Your task to perform on an android device: Add "logitech g pro" to the cart on bestbuy, then select checkout. Image 0: 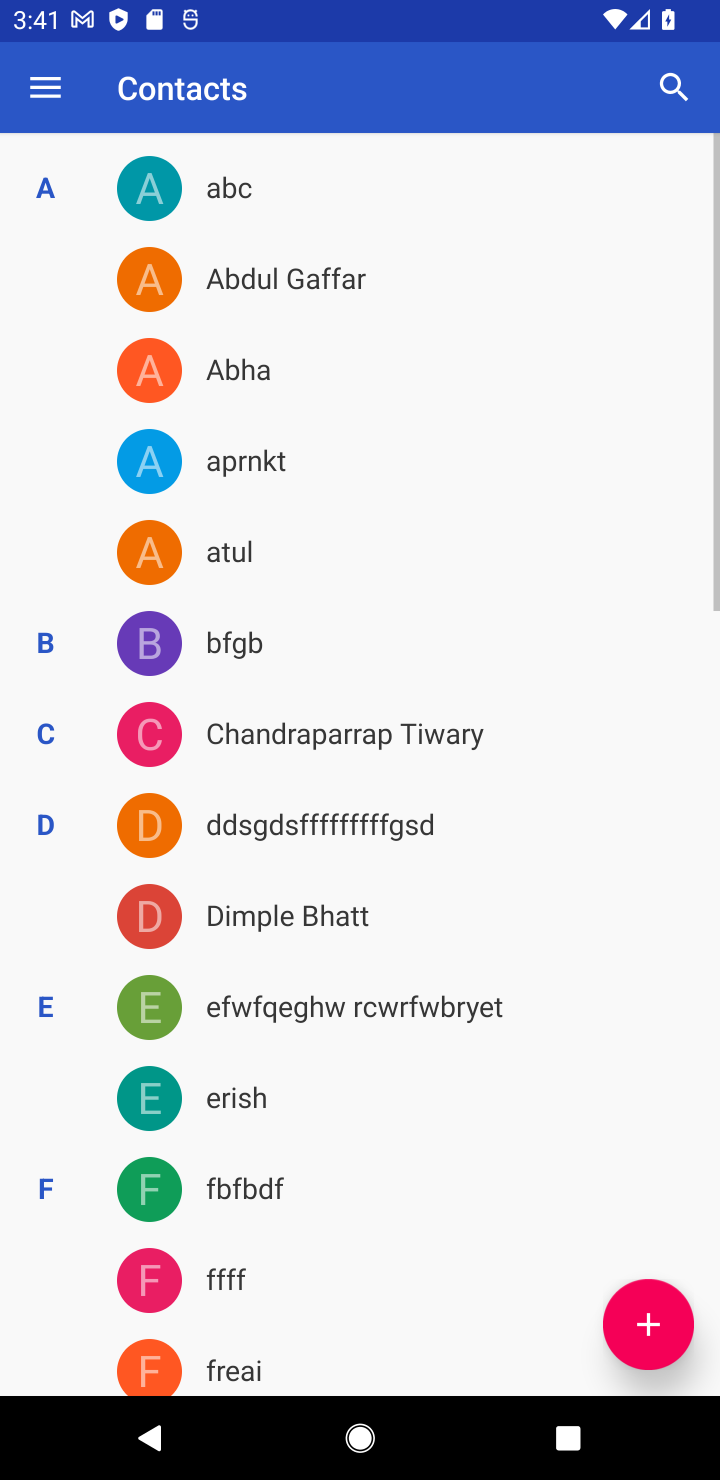
Step 0: press home button
Your task to perform on an android device: Add "logitech g pro" to the cart on bestbuy, then select checkout. Image 1: 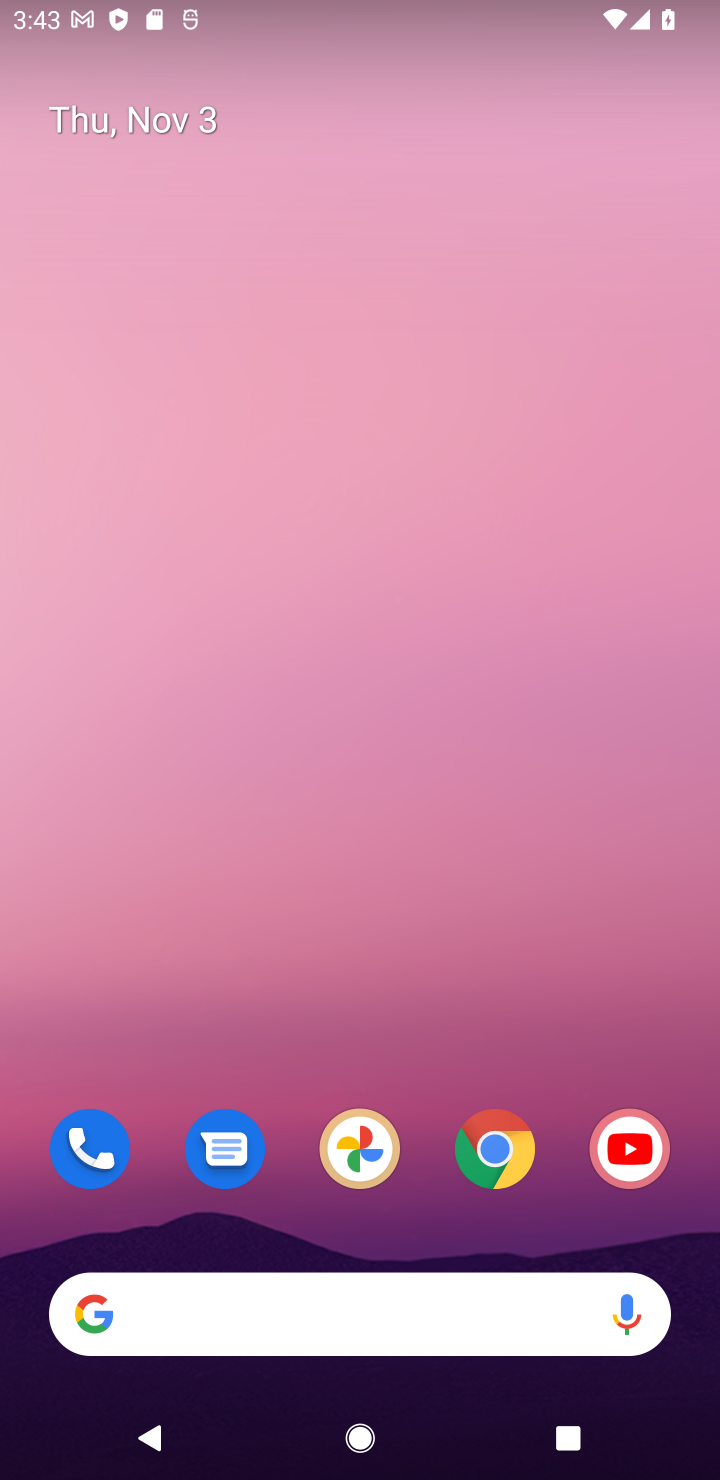
Step 1: click (488, 1143)
Your task to perform on an android device: Add "logitech g pro" to the cart on bestbuy, then select checkout. Image 2: 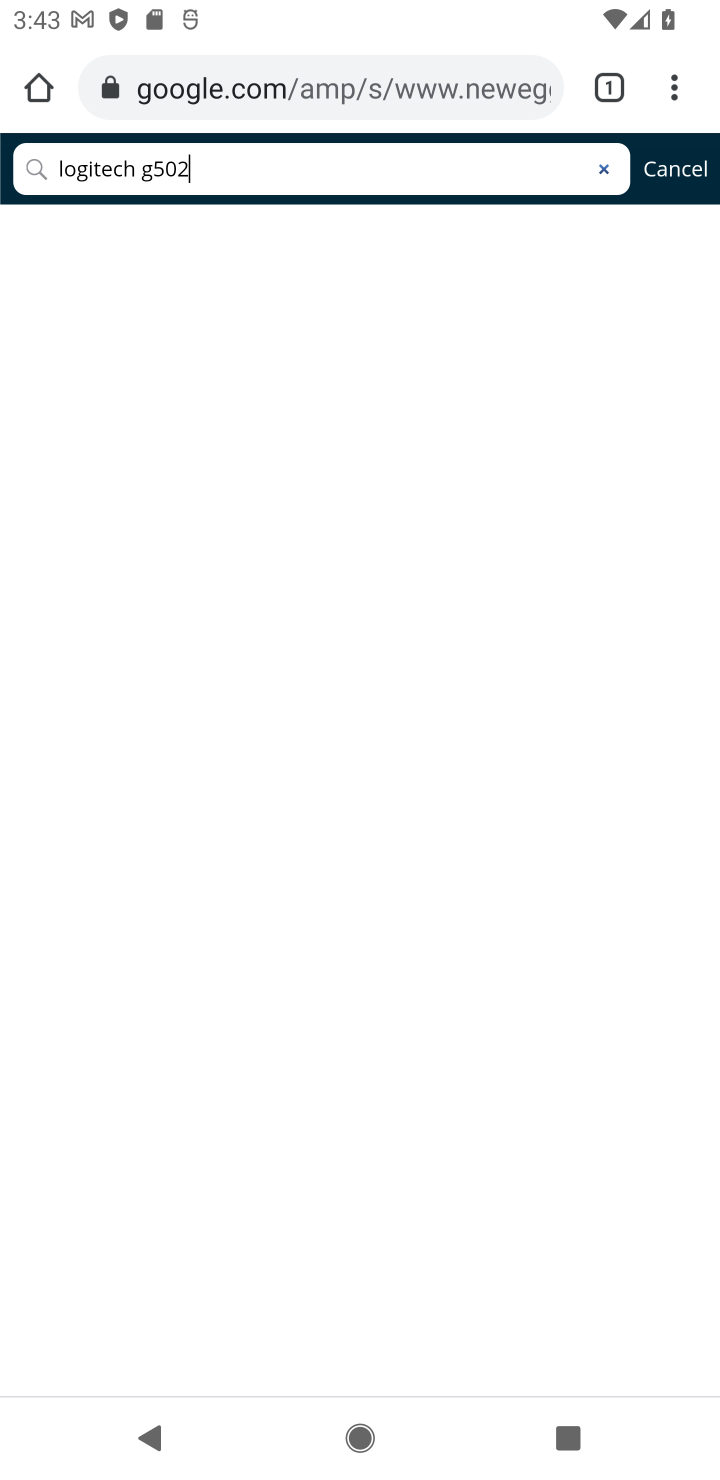
Step 2: click (280, 99)
Your task to perform on an android device: Add "logitech g pro" to the cart on bestbuy, then select checkout. Image 3: 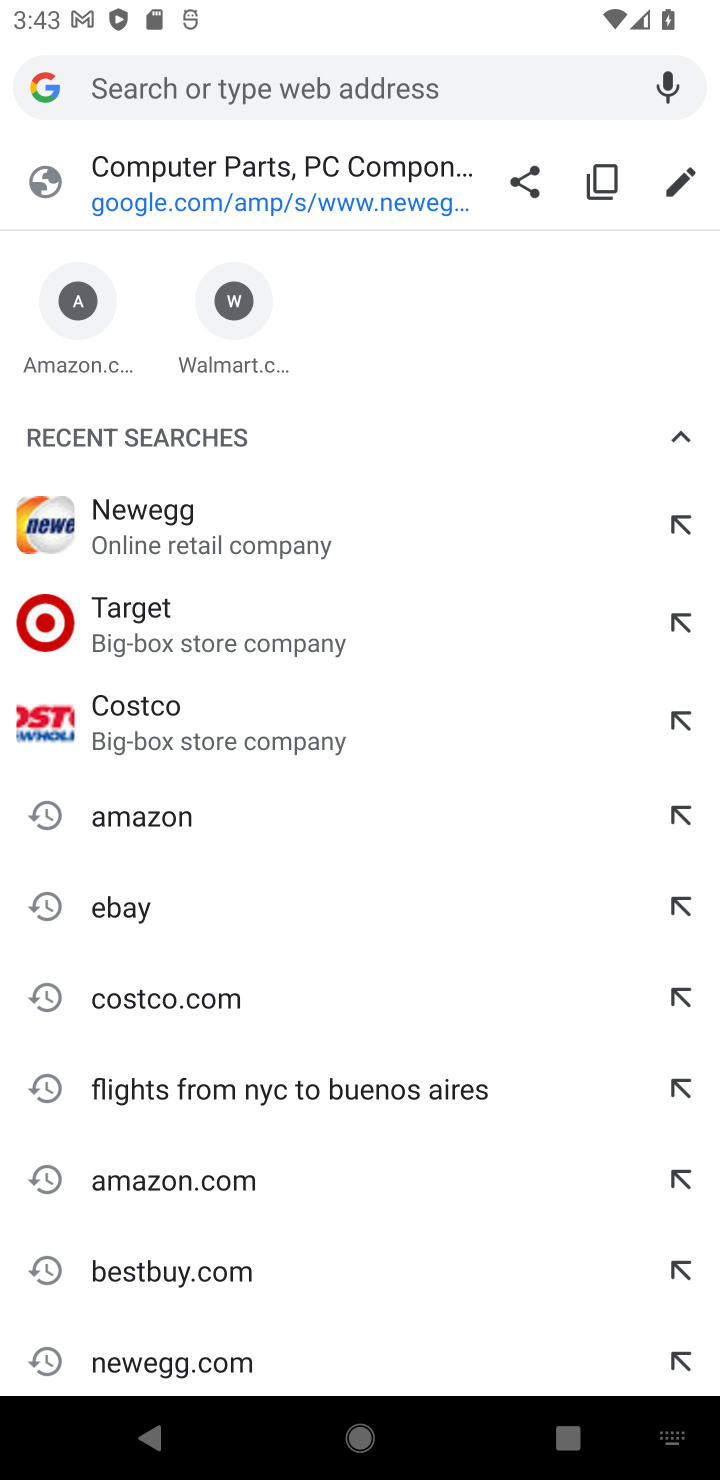
Step 3: click (262, 1253)
Your task to perform on an android device: Add "logitech g pro" to the cart on bestbuy, then select checkout. Image 4: 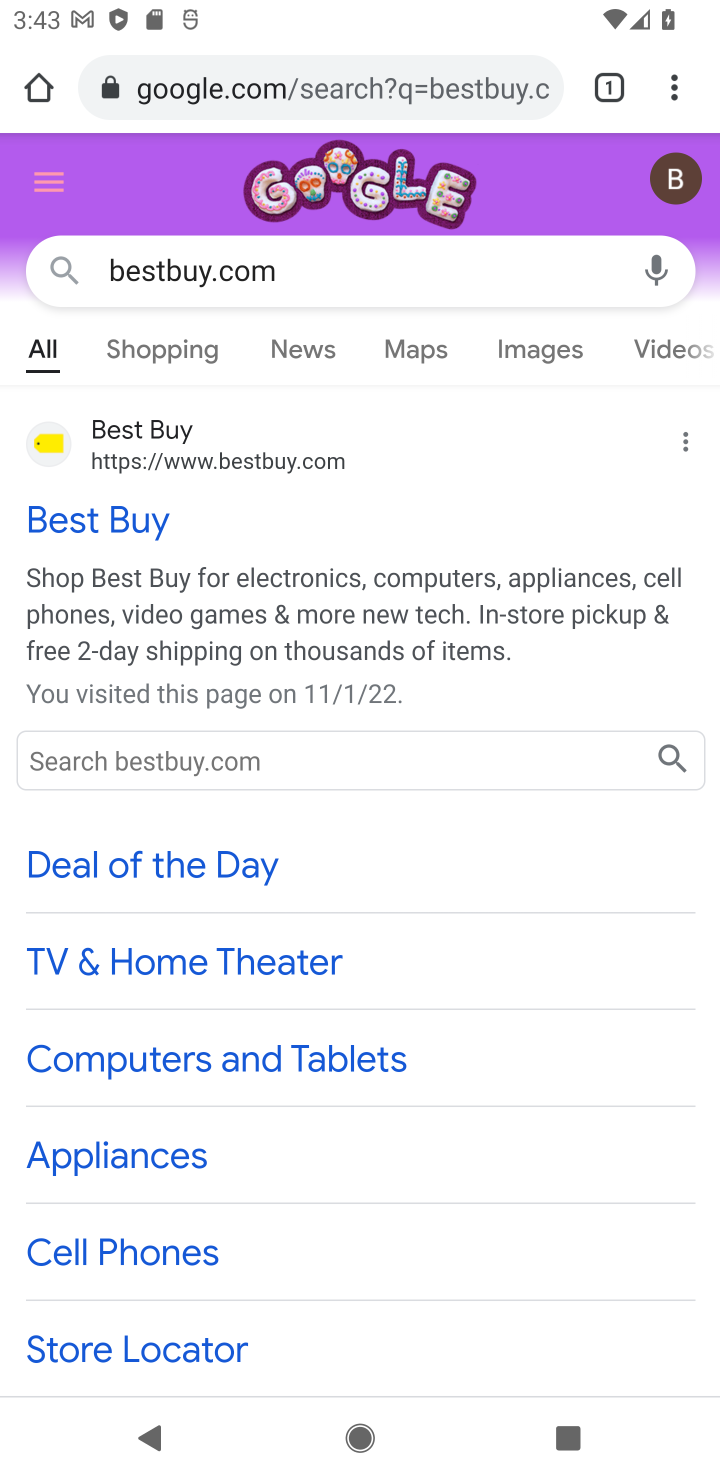
Step 4: click (87, 520)
Your task to perform on an android device: Add "logitech g pro" to the cart on bestbuy, then select checkout. Image 5: 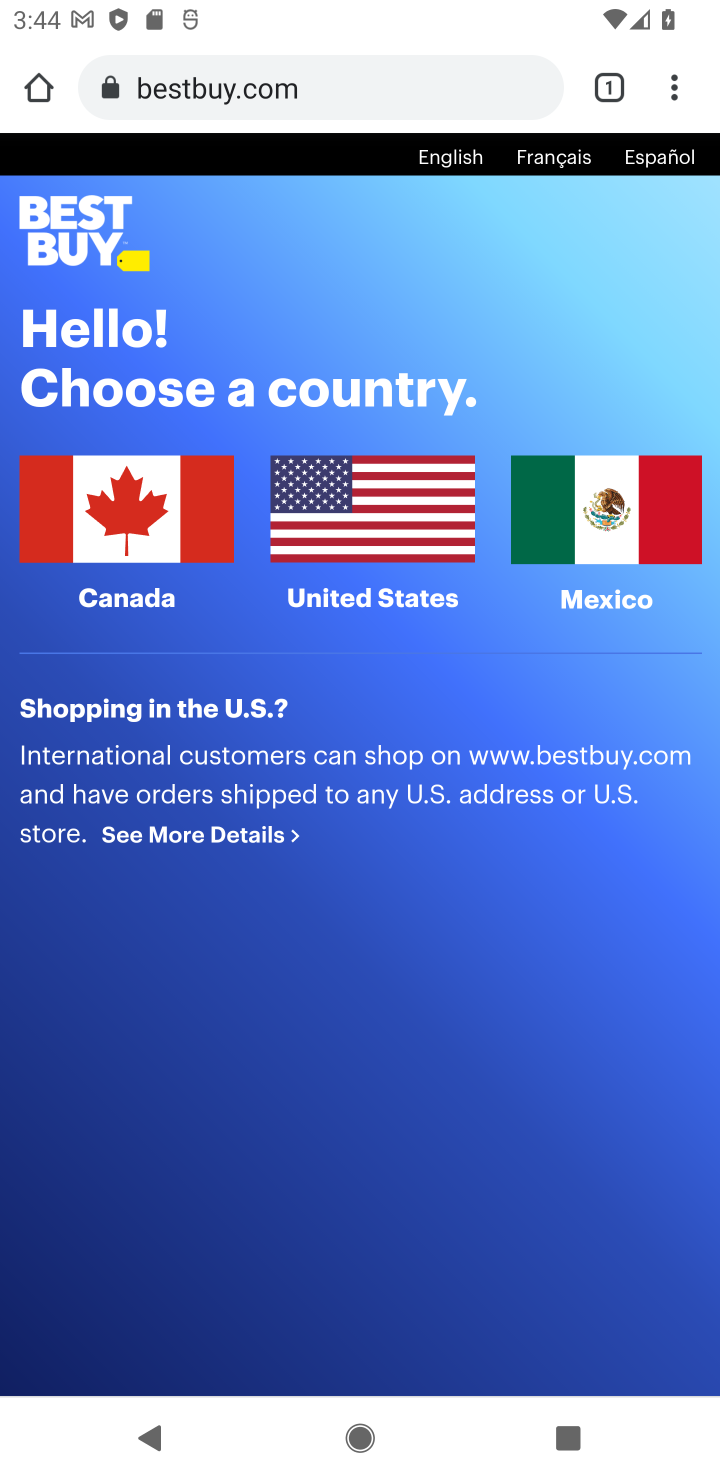
Step 5: click (363, 552)
Your task to perform on an android device: Add "logitech g pro" to the cart on bestbuy, then select checkout. Image 6: 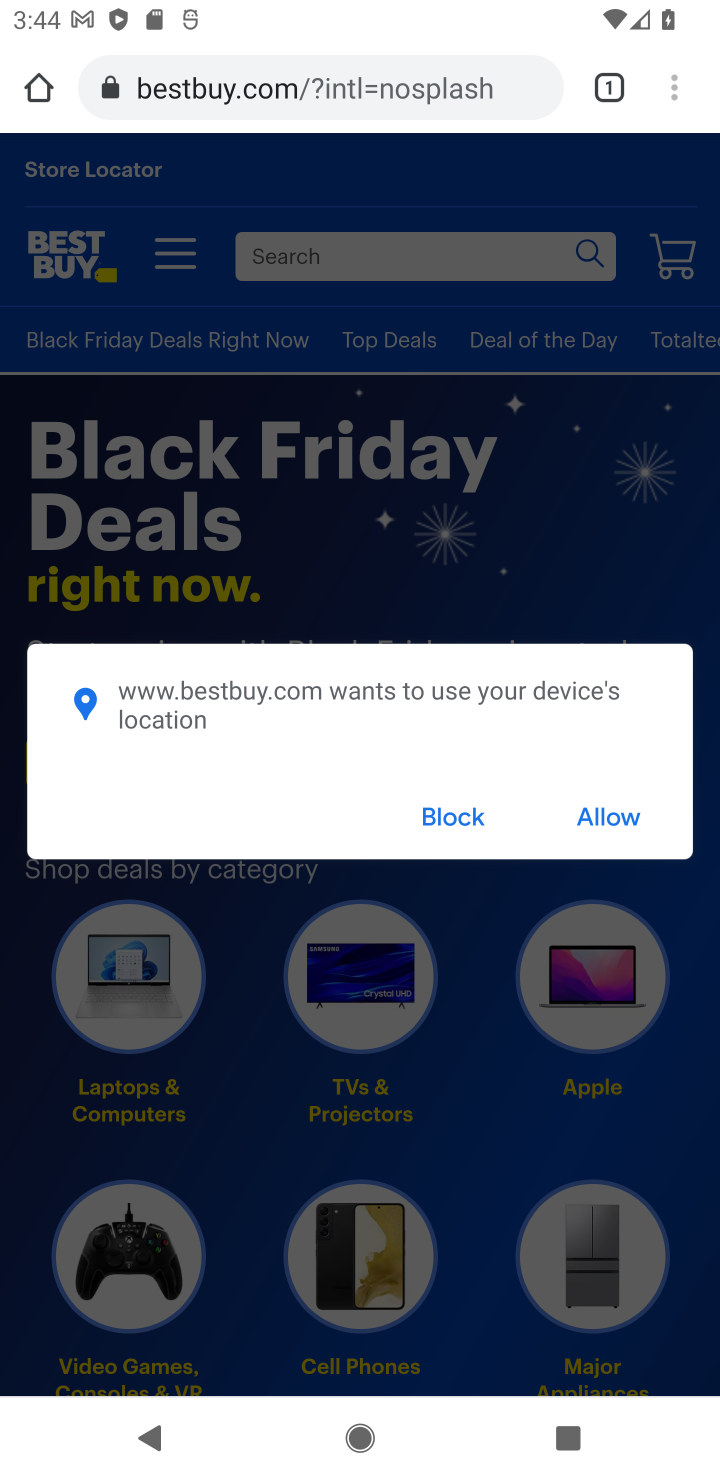
Step 6: click (609, 834)
Your task to perform on an android device: Add "logitech g pro" to the cart on bestbuy, then select checkout. Image 7: 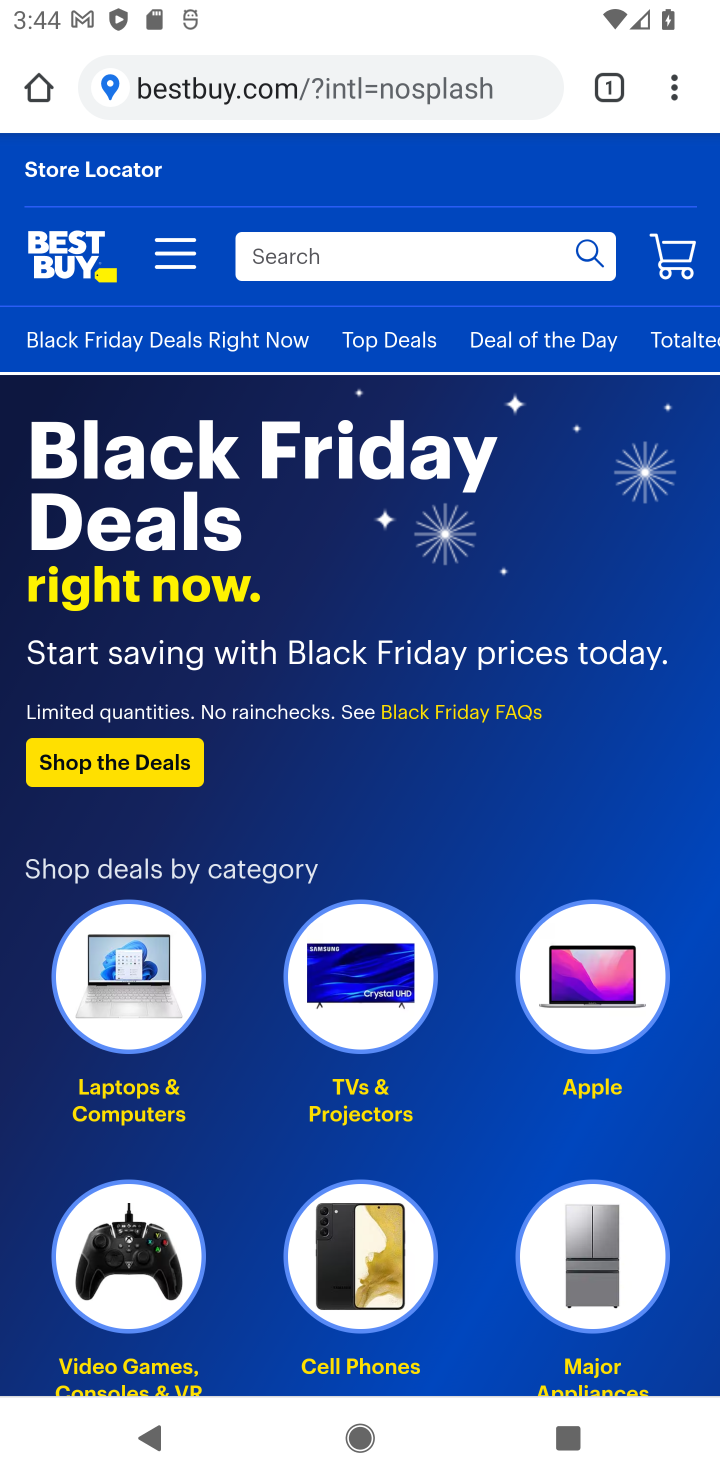
Step 7: click (318, 256)
Your task to perform on an android device: Add "logitech g pro" to the cart on bestbuy, then select checkout. Image 8: 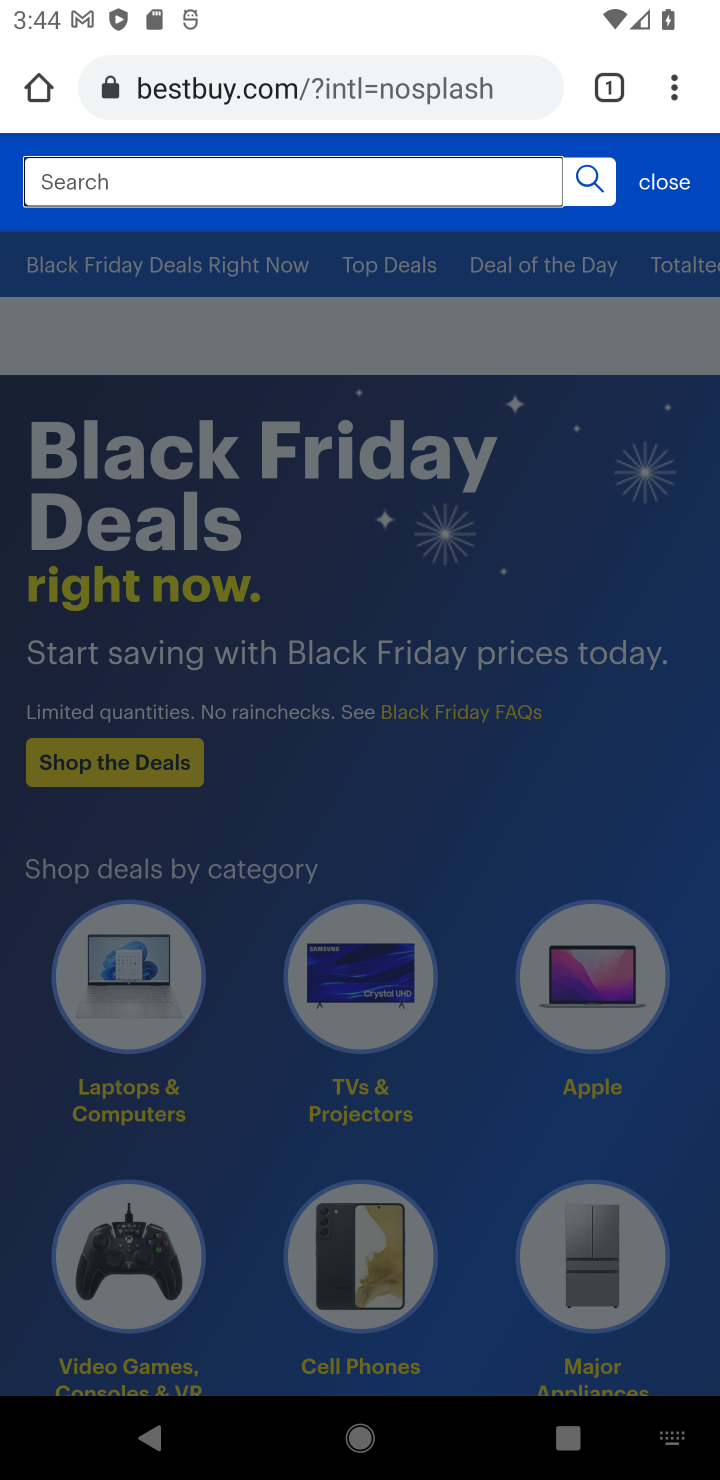
Step 8: type "logitech g pro"
Your task to perform on an android device: Add "logitech g pro" to the cart on bestbuy, then select checkout. Image 9: 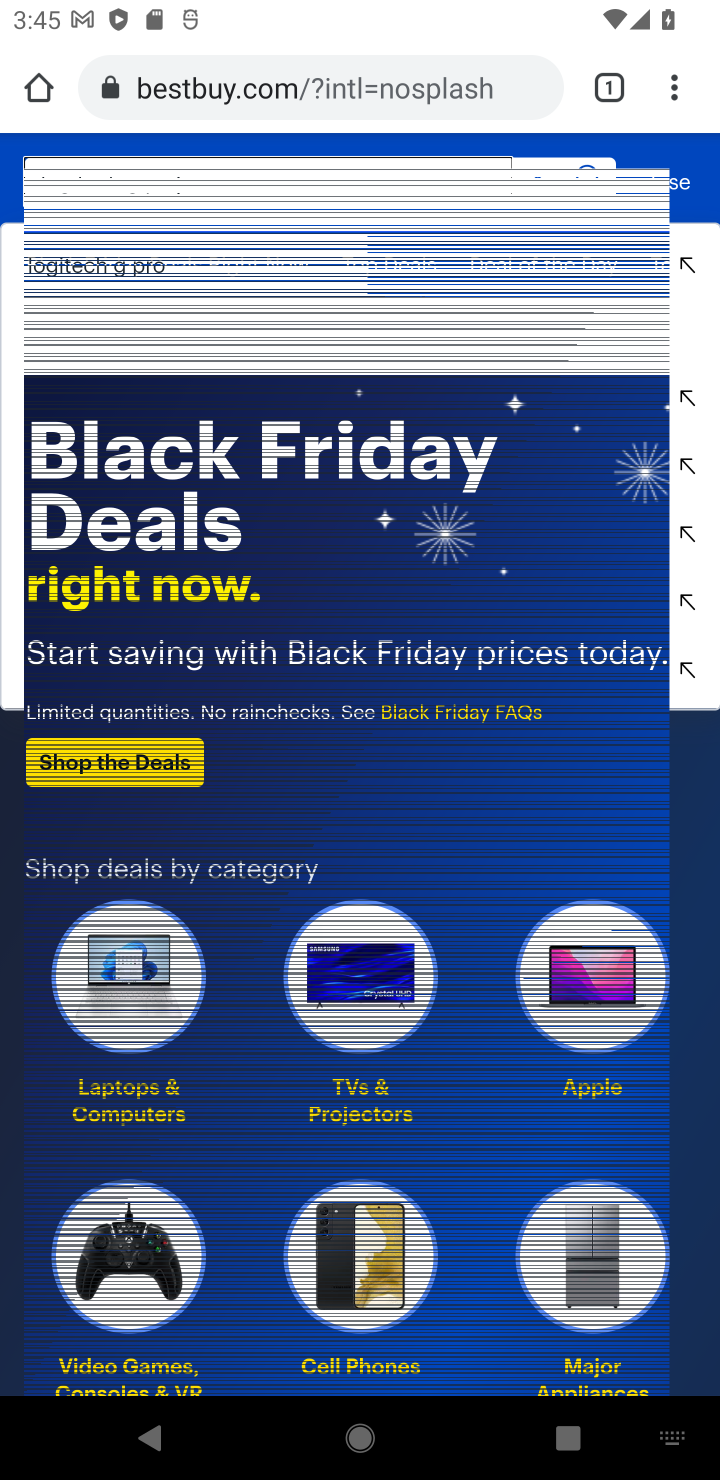
Step 9: click (602, 182)
Your task to perform on an android device: Add "logitech g pro" to the cart on bestbuy, then select checkout. Image 10: 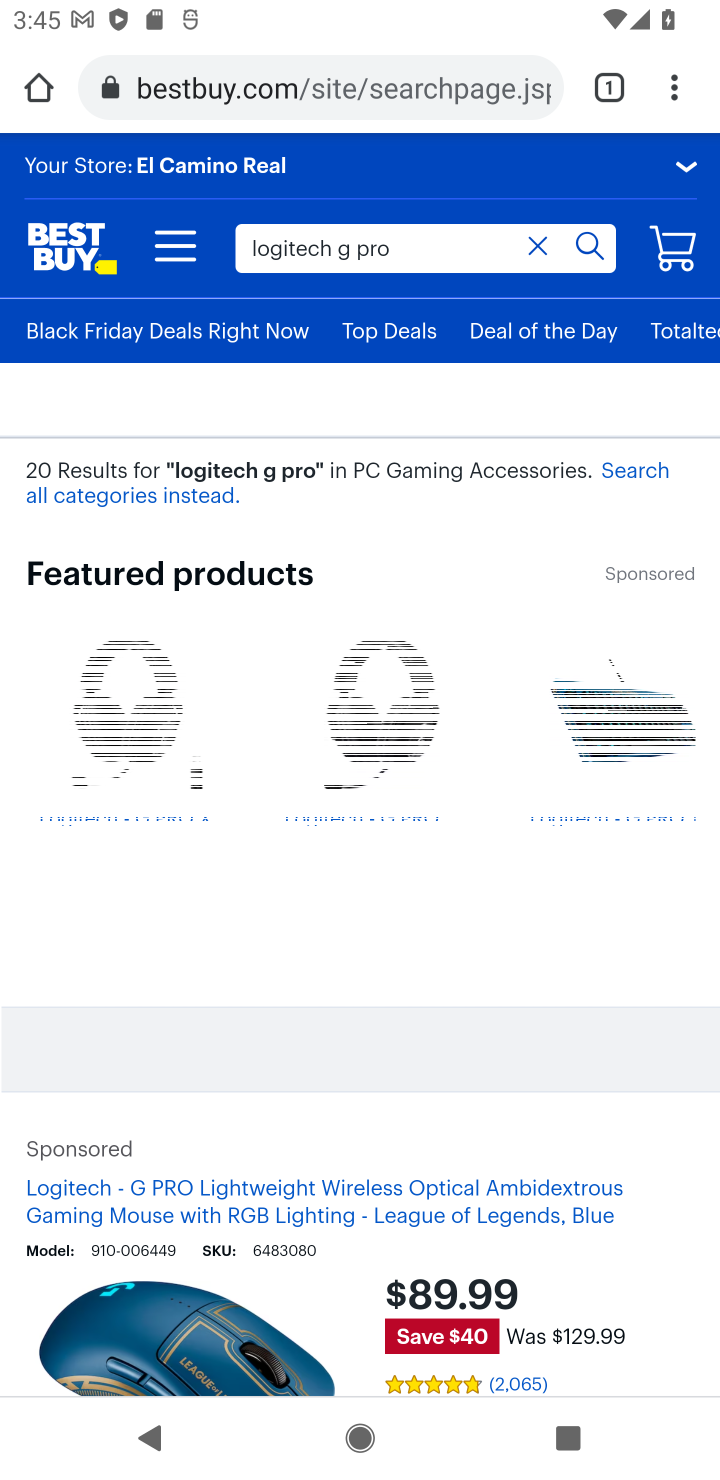
Step 10: click (321, 1209)
Your task to perform on an android device: Add "logitech g pro" to the cart on bestbuy, then select checkout. Image 11: 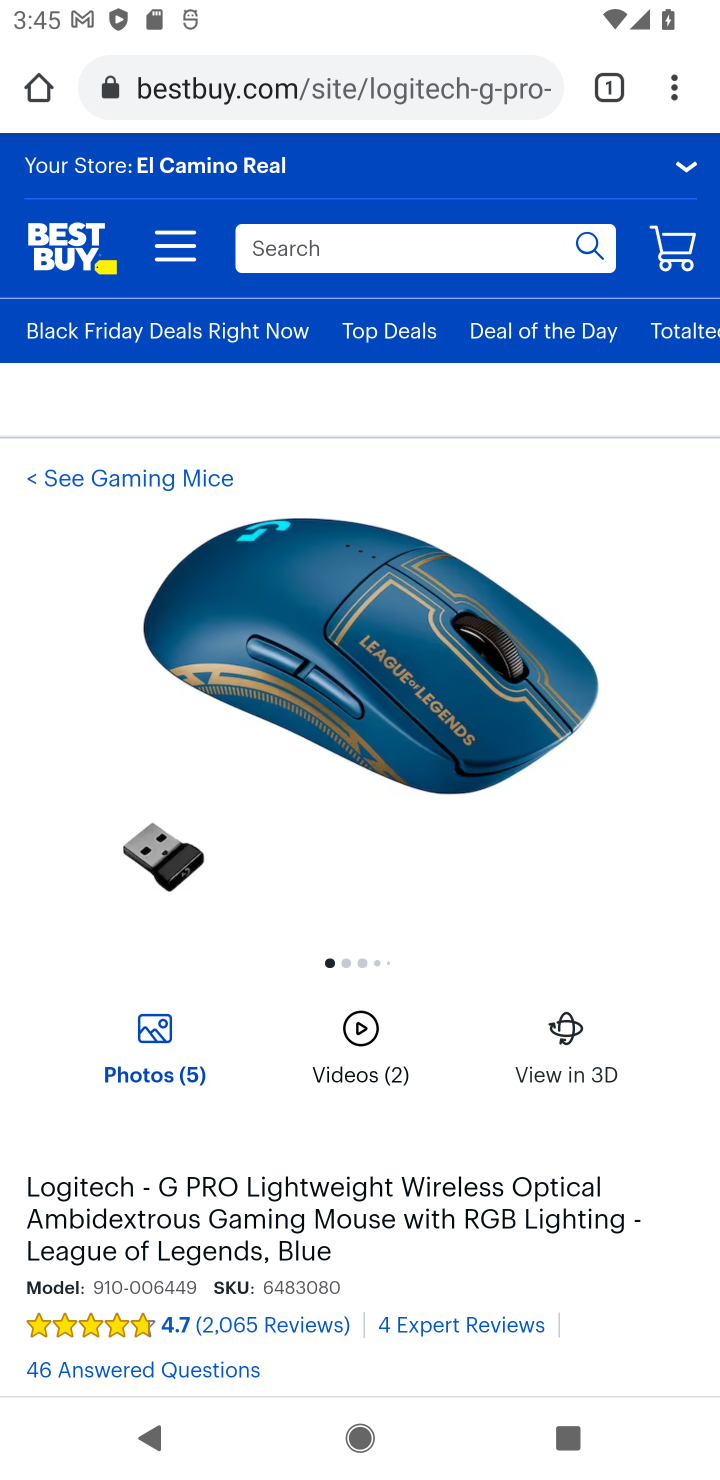
Step 11: drag from (403, 1231) to (427, 585)
Your task to perform on an android device: Add "logitech g pro" to the cart on bestbuy, then select checkout. Image 12: 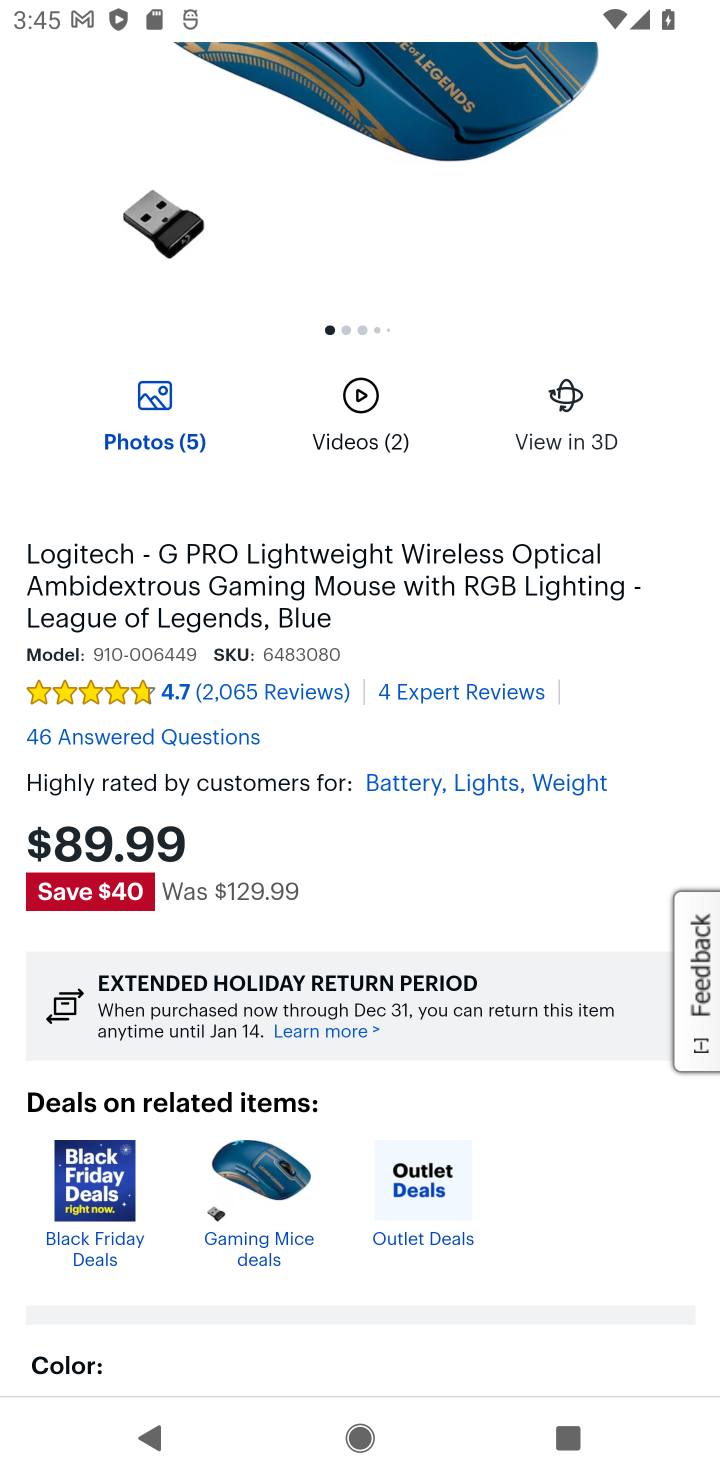
Step 12: drag from (525, 1048) to (436, 264)
Your task to perform on an android device: Add "logitech g pro" to the cart on bestbuy, then select checkout. Image 13: 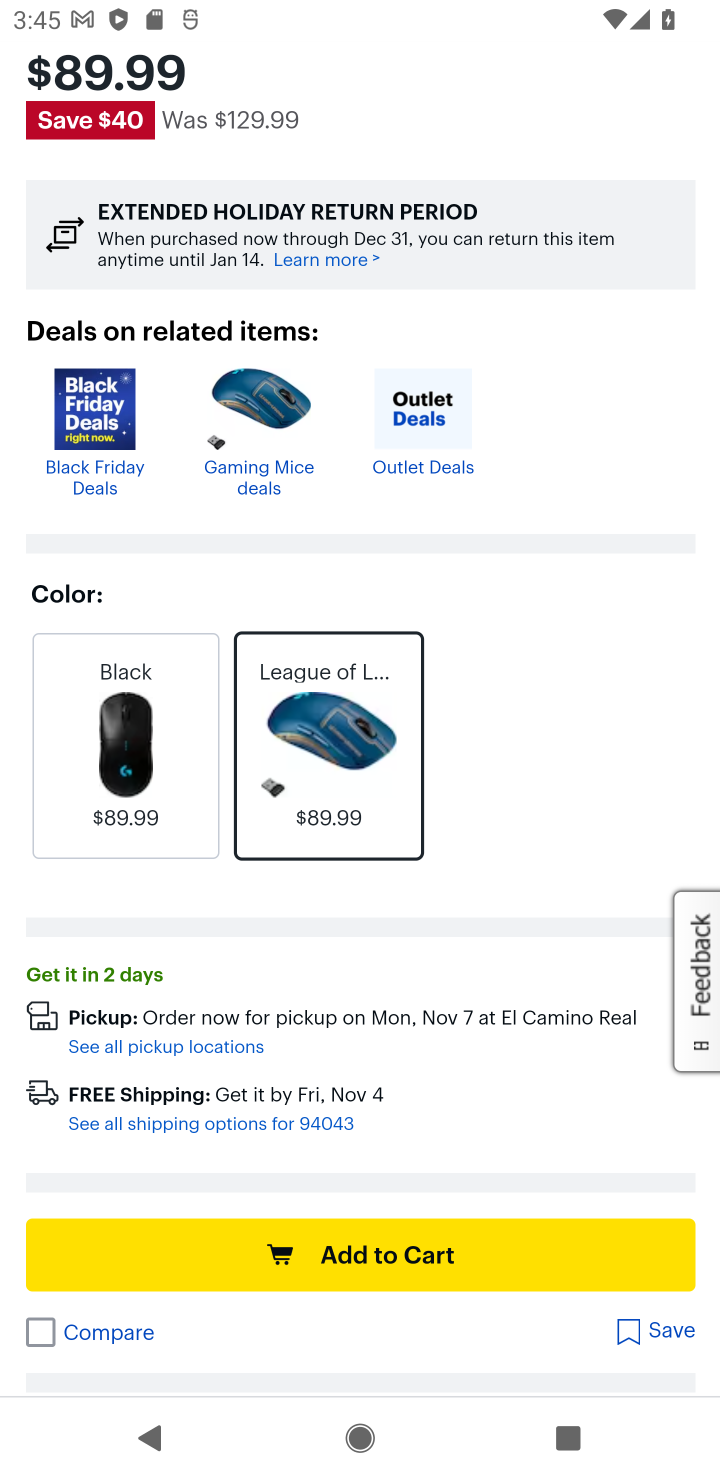
Step 13: click (436, 264)
Your task to perform on an android device: Add "logitech g pro" to the cart on bestbuy, then select checkout. Image 14: 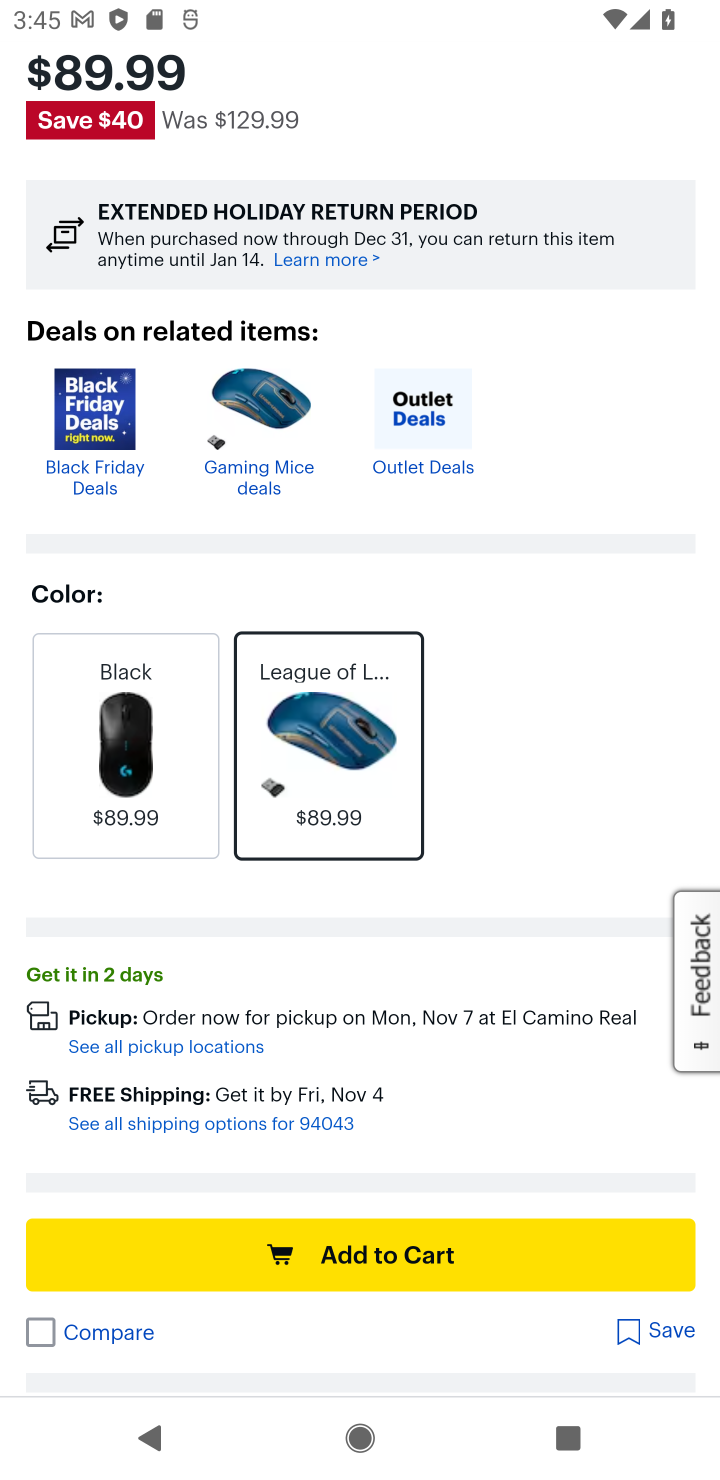
Step 14: click (368, 1251)
Your task to perform on an android device: Add "logitech g pro" to the cart on bestbuy, then select checkout. Image 15: 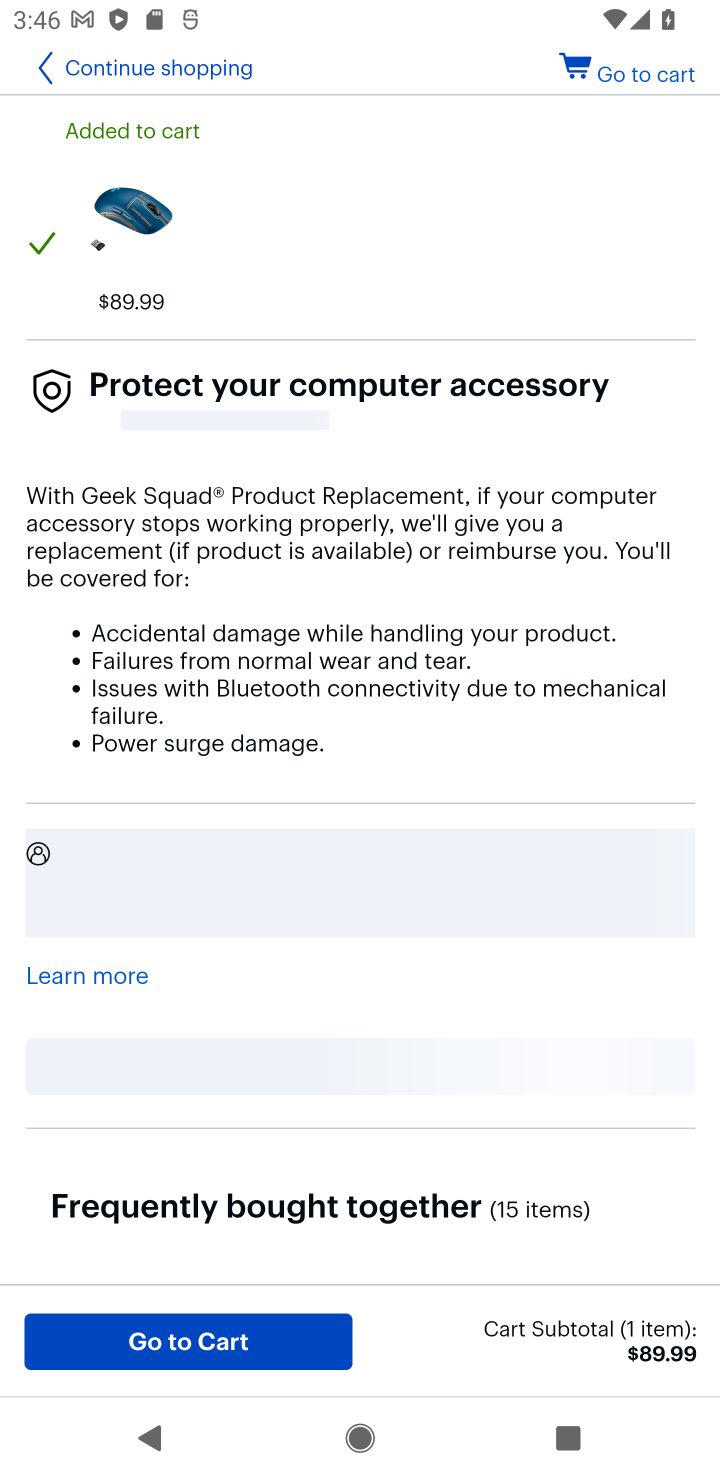
Step 15: click (172, 1338)
Your task to perform on an android device: Add "logitech g pro" to the cart on bestbuy, then select checkout. Image 16: 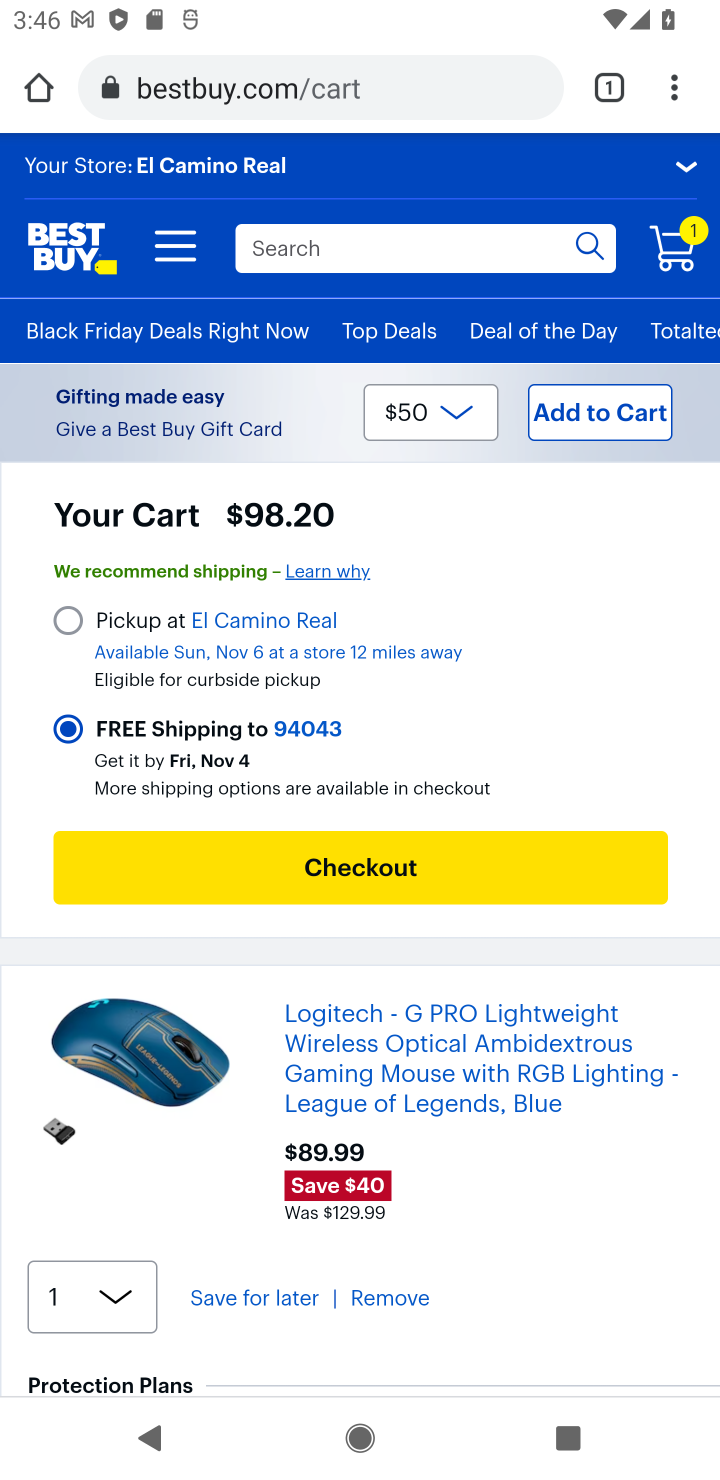
Step 16: click (343, 857)
Your task to perform on an android device: Add "logitech g pro" to the cart on bestbuy, then select checkout. Image 17: 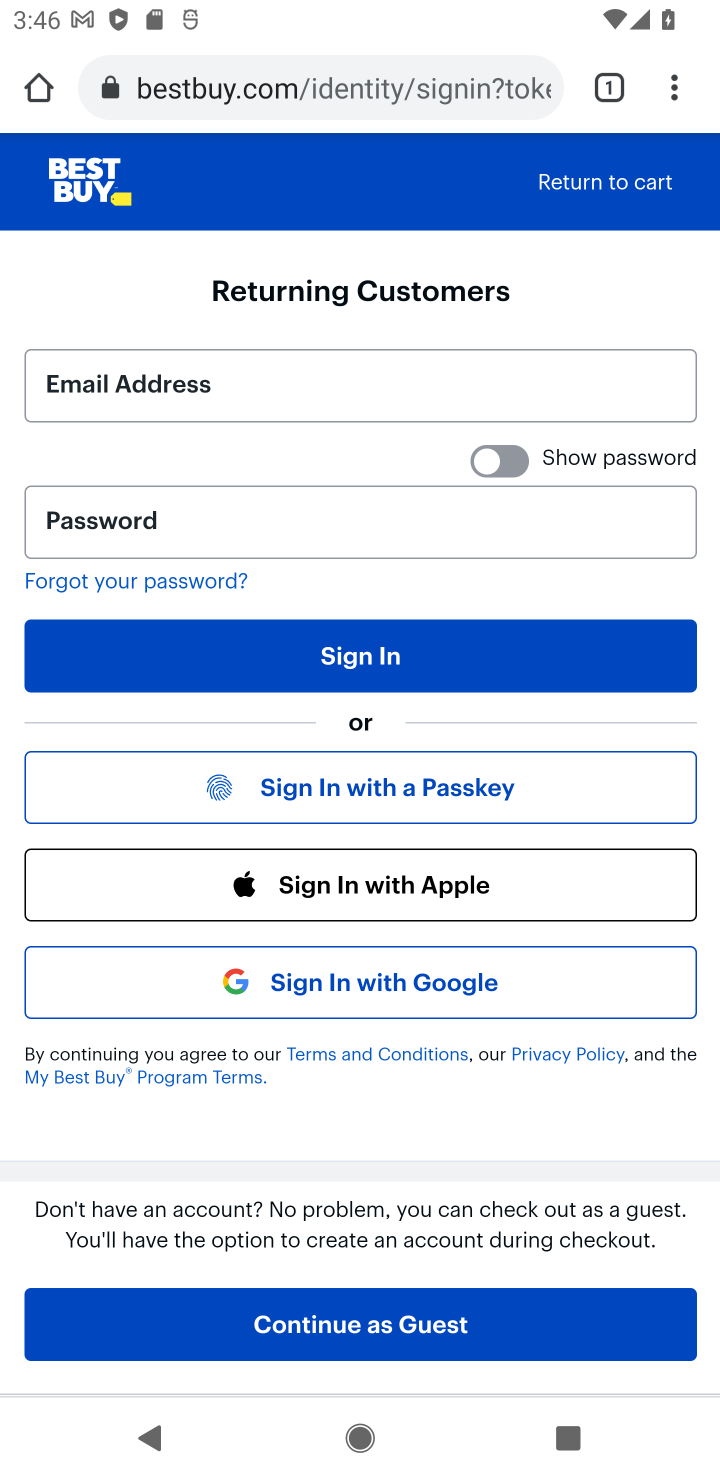
Step 17: task complete